Your task to perform on an android device: install app "Google Drive" Image 0: 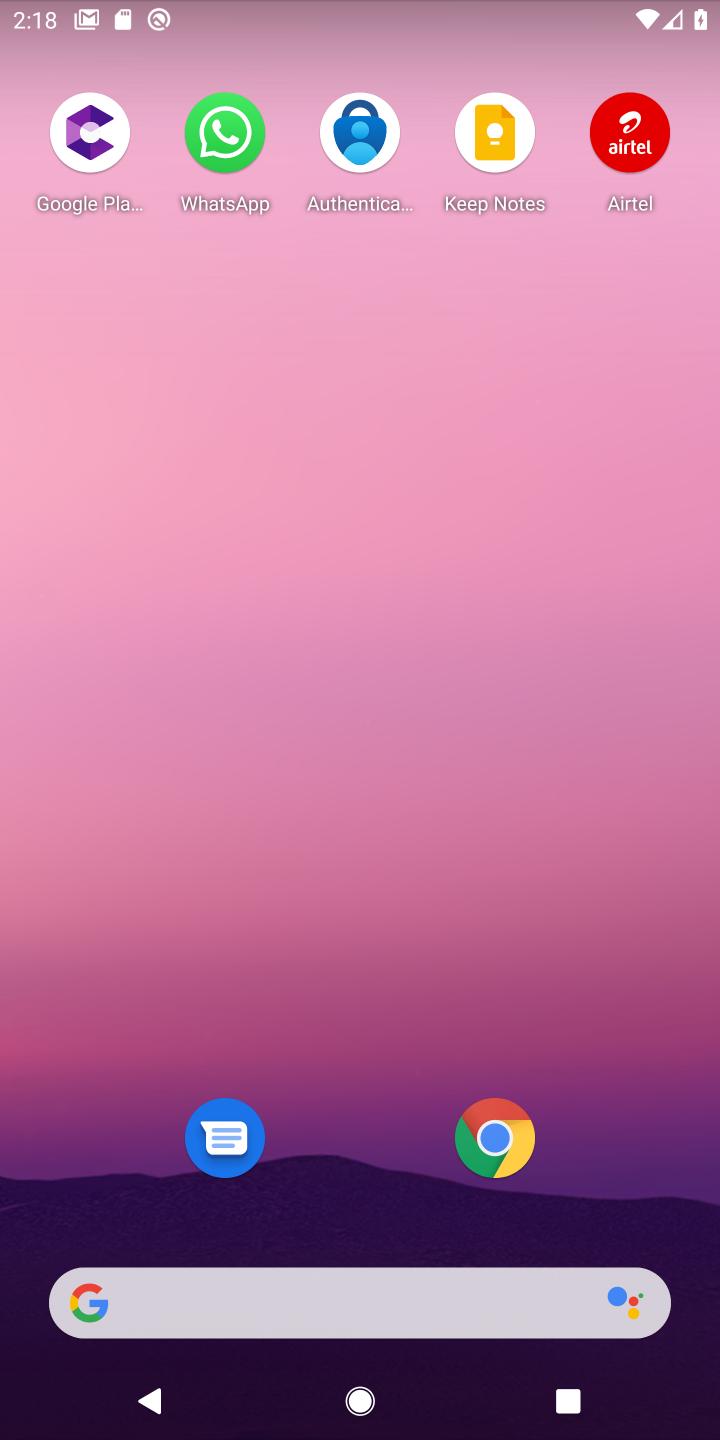
Step 0: drag from (424, 816) to (507, 352)
Your task to perform on an android device: install app "Google Drive" Image 1: 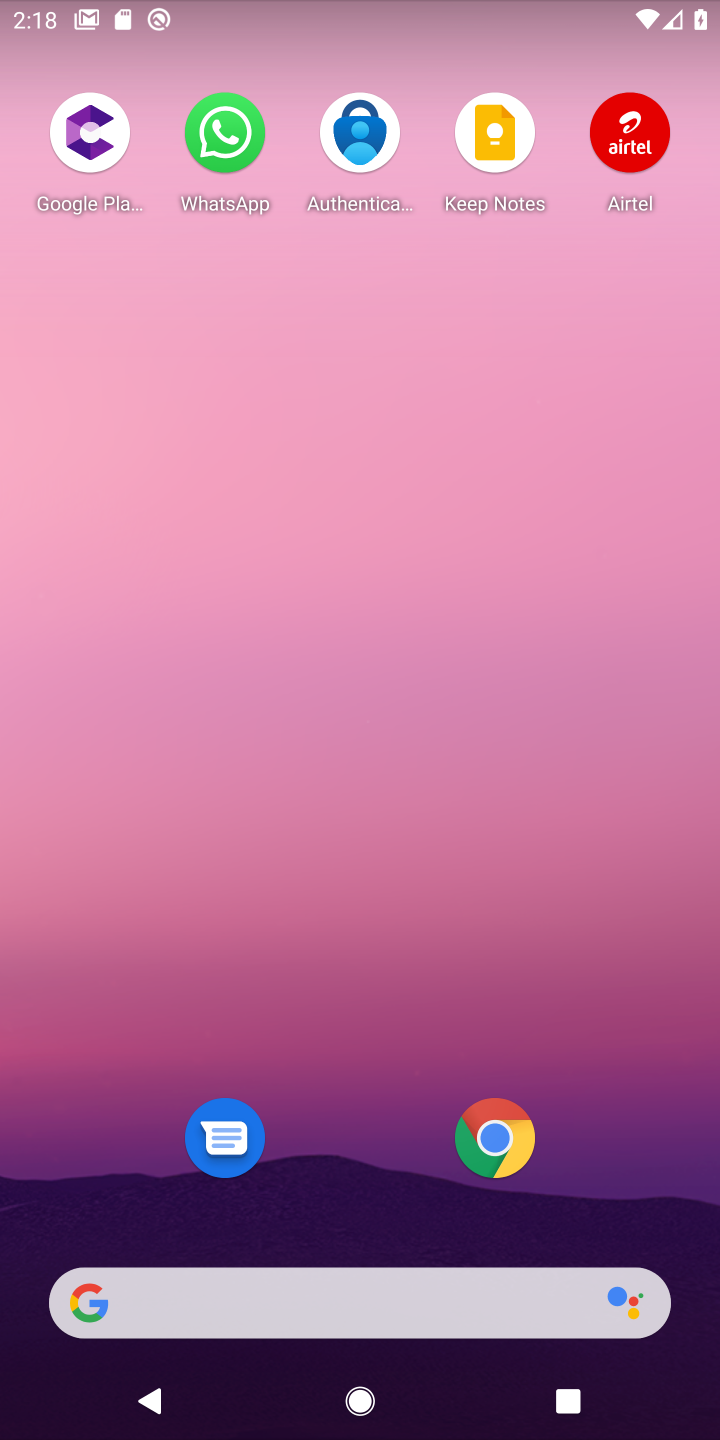
Step 1: click (566, 410)
Your task to perform on an android device: install app "Google Drive" Image 2: 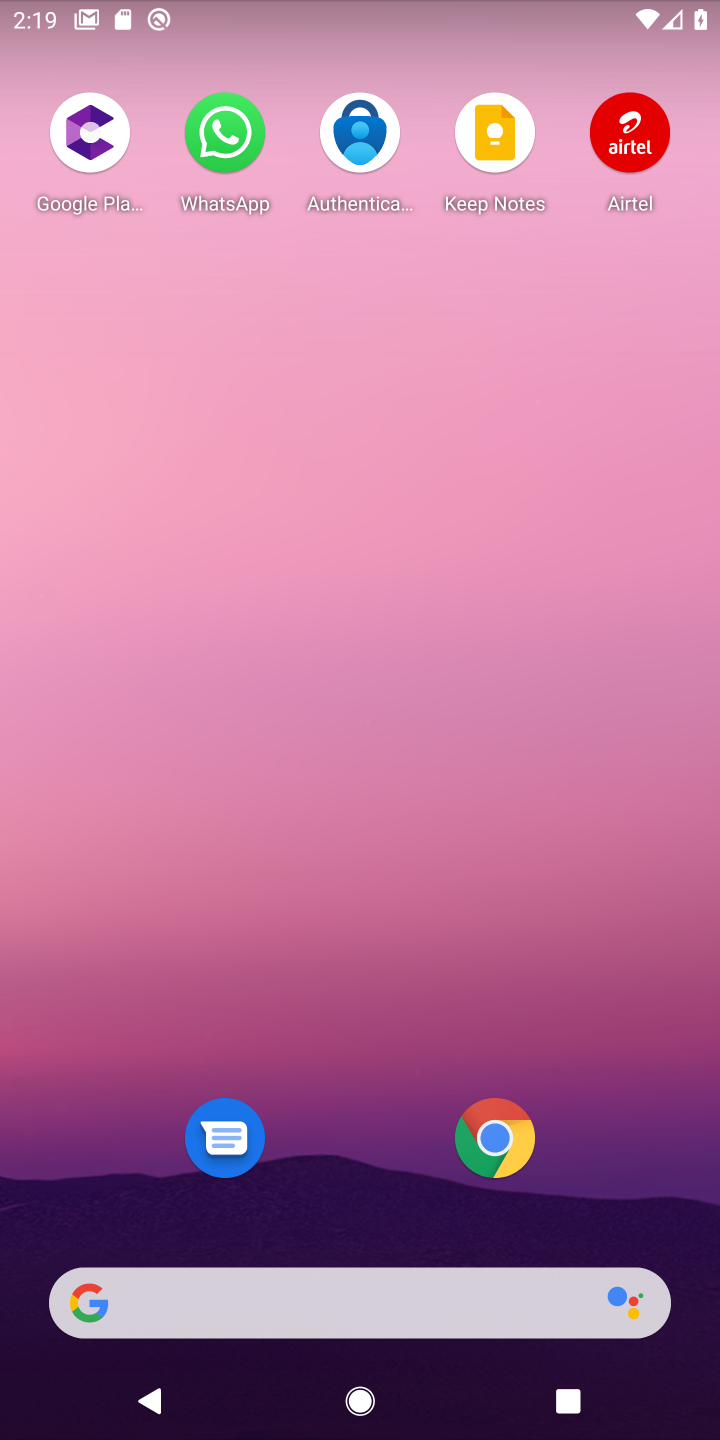
Step 2: task complete